Your task to perform on an android device: turn on the 24-hour format for clock Image 0: 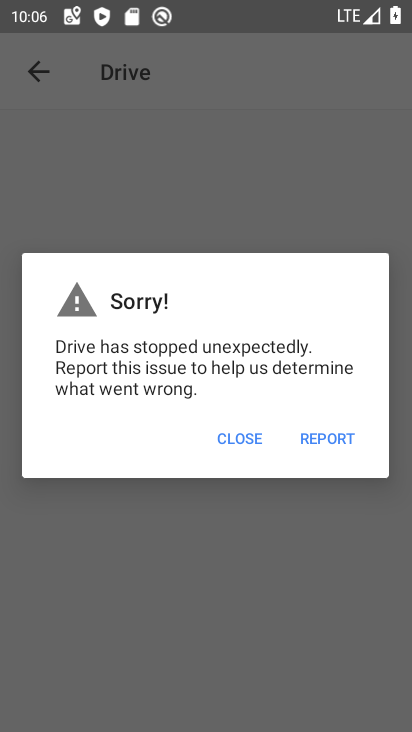
Step 0: press home button
Your task to perform on an android device: turn on the 24-hour format for clock Image 1: 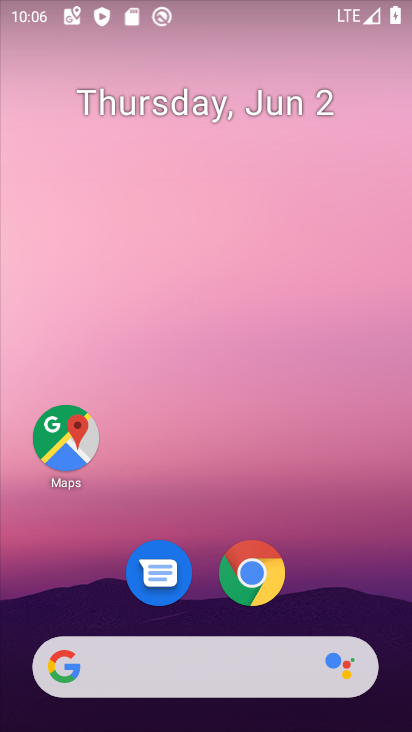
Step 1: drag from (353, 580) to (345, 143)
Your task to perform on an android device: turn on the 24-hour format for clock Image 2: 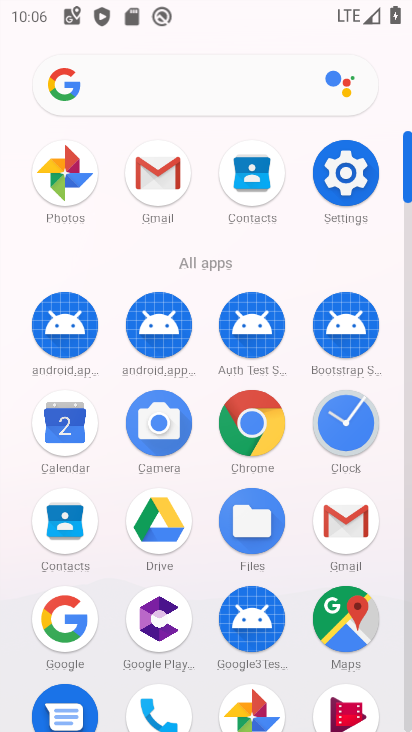
Step 2: click (334, 410)
Your task to perform on an android device: turn on the 24-hour format for clock Image 3: 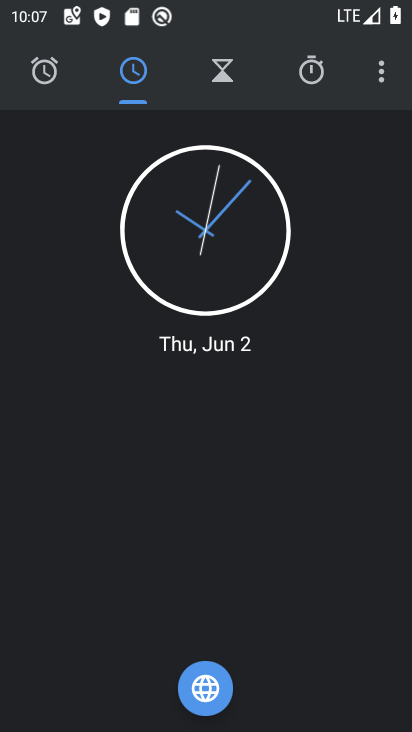
Step 3: click (387, 79)
Your task to perform on an android device: turn on the 24-hour format for clock Image 4: 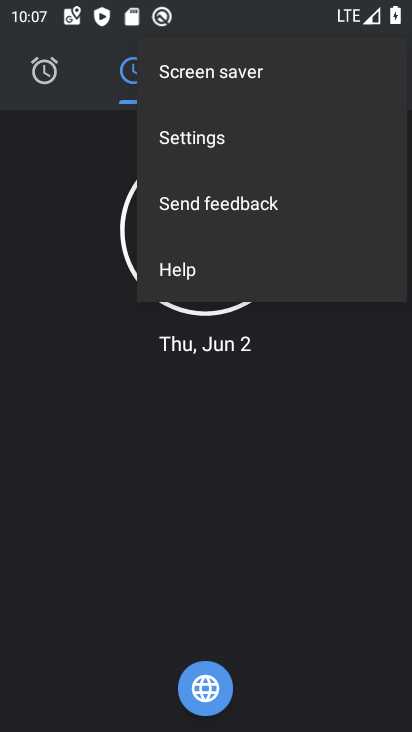
Step 4: click (228, 132)
Your task to perform on an android device: turn on the 24-hour format for clock Image 5: 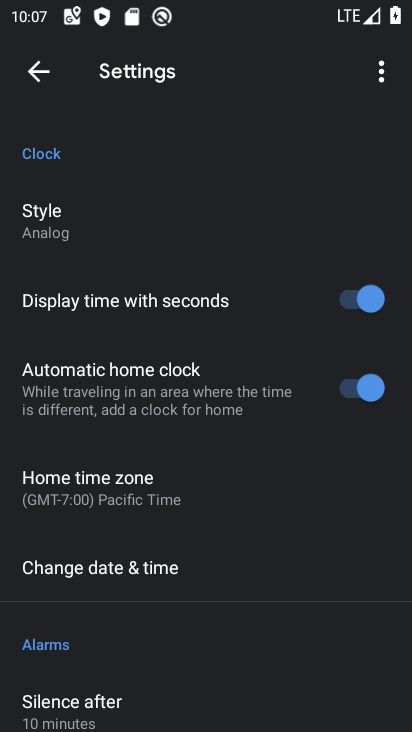
Step 5: click (170, 566)
Your task to perform on an android device: turn on the 24-hour format for clock Image 6: 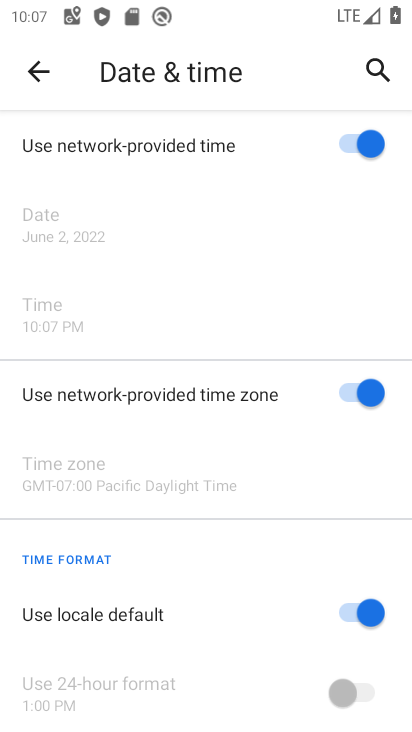
Step 6: drag from (210, 568) to (240, 292)
Your task to perform on an android device: turn on the 24-hour format for clock Image 7: 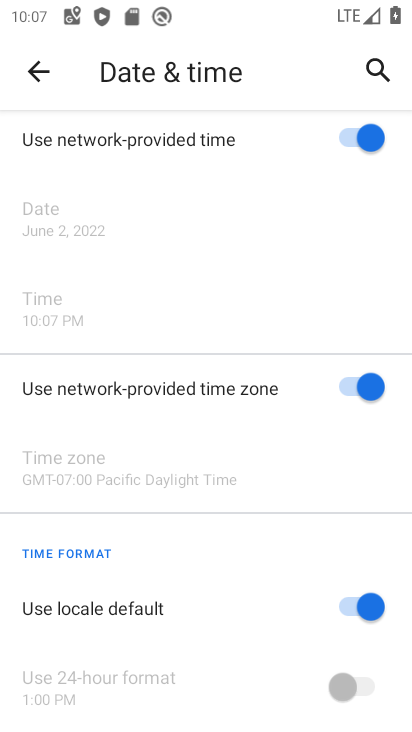
Step 7: click (361, 609)
Your task to perform on an android device: turn on the 24-hour format for clock Image 8: 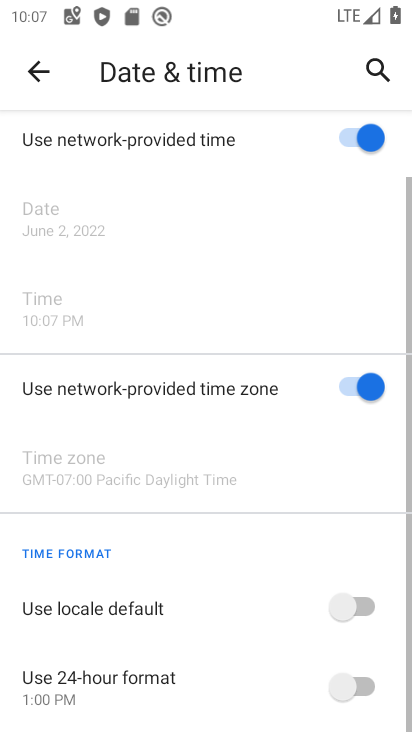
Step 8: click (365, 689)
Your task to perform on an android device: turn on the 24-hour format for clock Image 9: 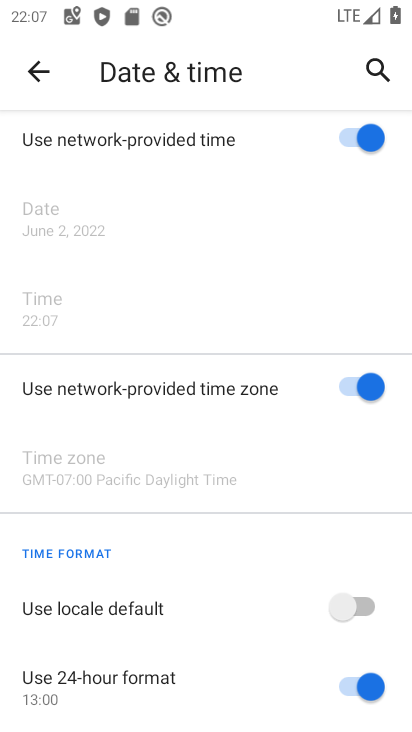
Step 9: task complete